Your task to perform on an android device: Open Chrome and go to the settings page Image 0: 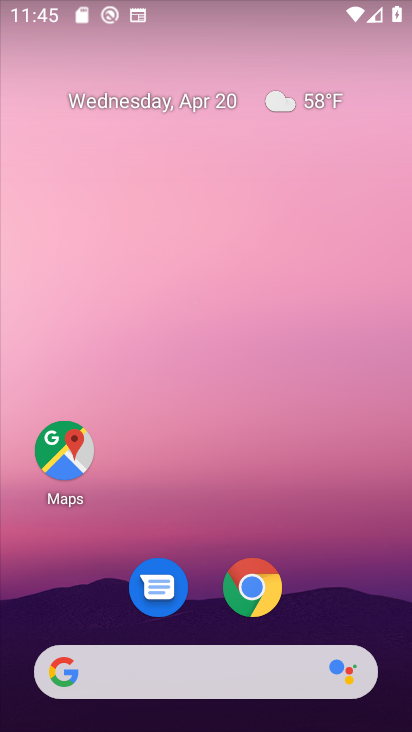
Step 0: click (251, 590)
Your task to perform on an android device: Open Chrome and go to the settings page Image 1: 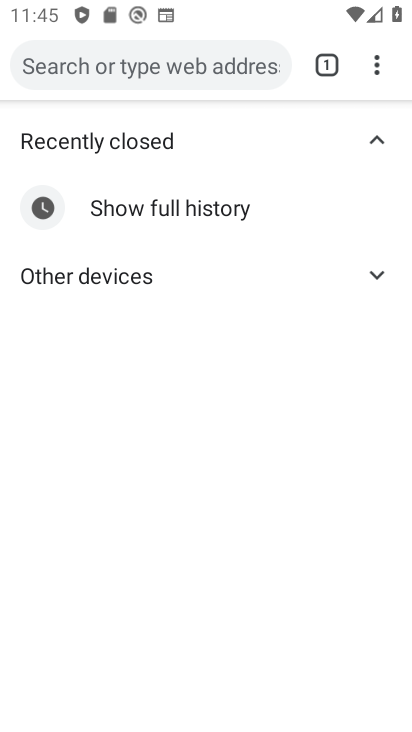
Step 1: click (371, 61)
Your task to perform on an android device: Open Chrome and go to the settings page Image 2: 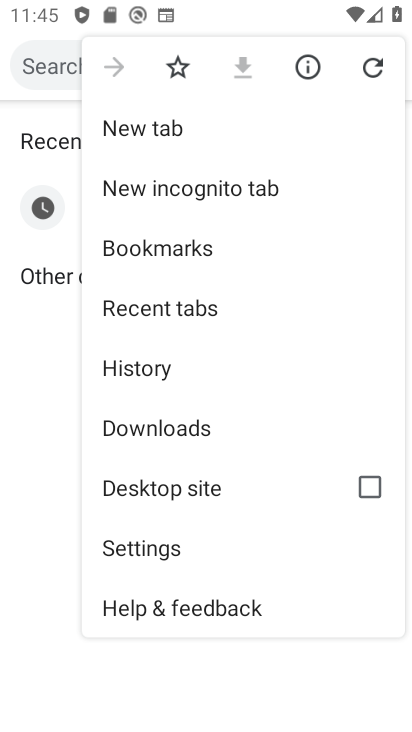
Step 2: click (156, 544)
Your task to perform on an android device: Open Chrome and go to the settings page Image 3: 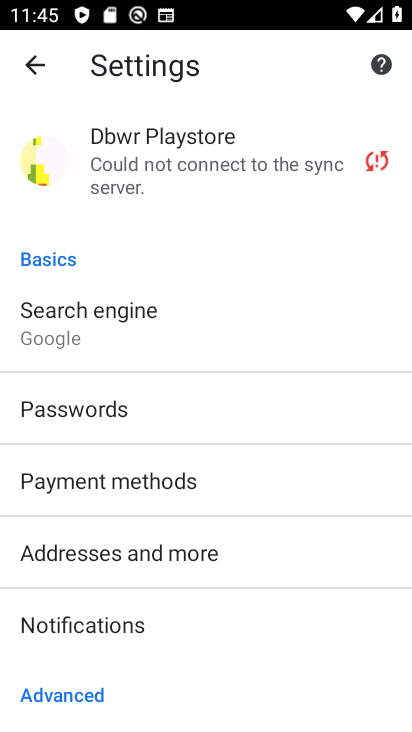
Step 3: task complete